Your task to perform on an android device: Go to calendar. Show me events next week Image 0: 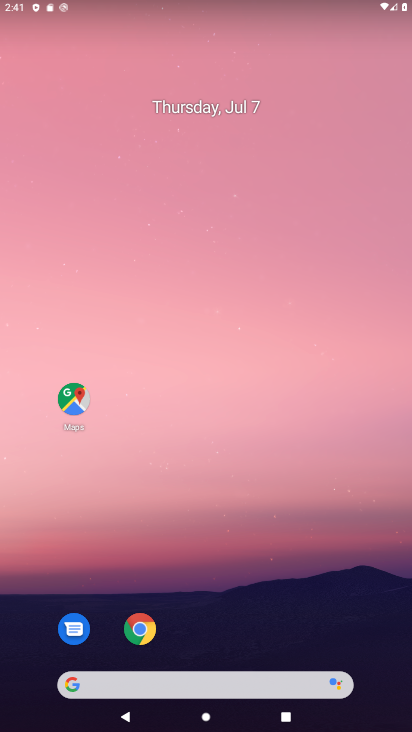
Step 0: click (369, 2)
Your task to perform on an android device: Go to calendar. Show me events next week Image 1: 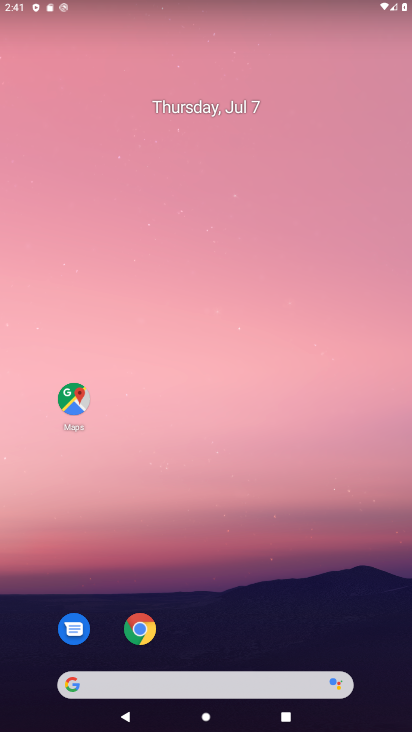
Step 1: drag from (207, 659) to (337, 120)
Your task to perform on an android device: Go to calendar. Show me events next week Image 2: 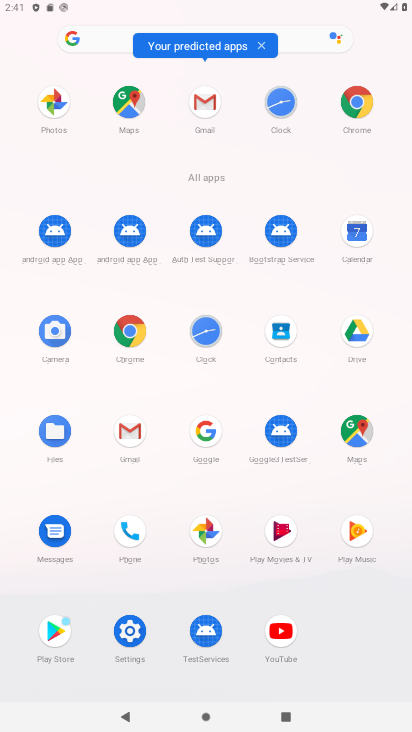
Step 2: click (360, 247)
Your task to perform on an android device: Go to calendar. Show me events next week Image 3: 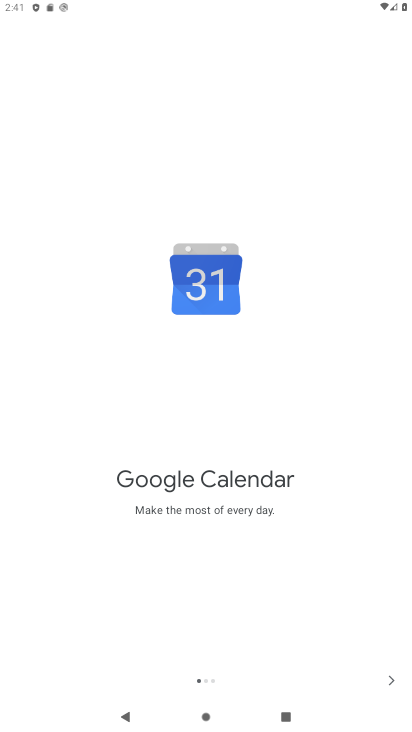
Step 3: click (384, 681)
Your task to perform on an android device: Go to calendar. Show me events next week Image 4: 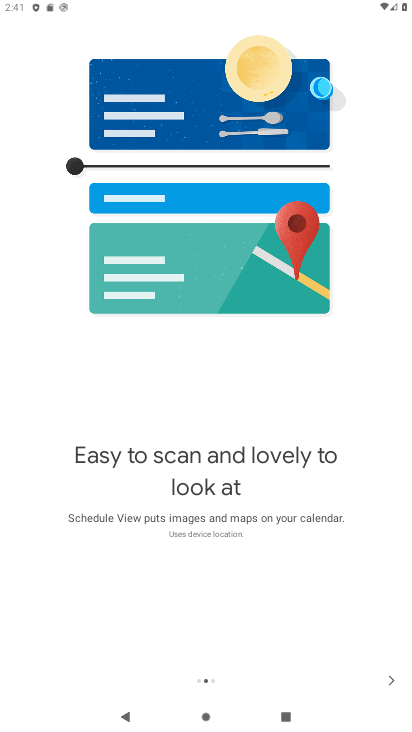
Step 4: click (390, 679)
Your task to perform on an android device: Go to calendar. Show me events next week Image 5: 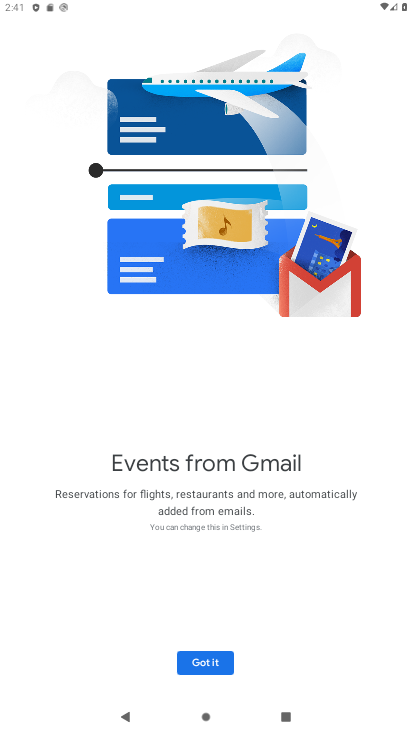
Step 5: click (204, 661)
Your task to perform on an android device: Go to calendar. Show me events next week Image 6: 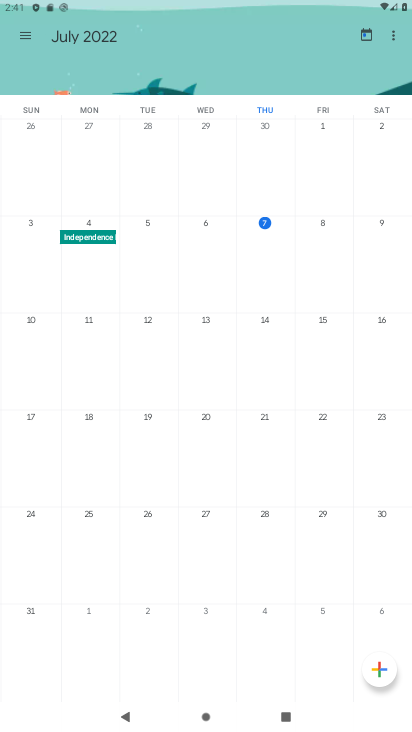
Step 6: click (33, 38)
Your task to perform on an android device: Go to calendar. Show me events next week Image 7: 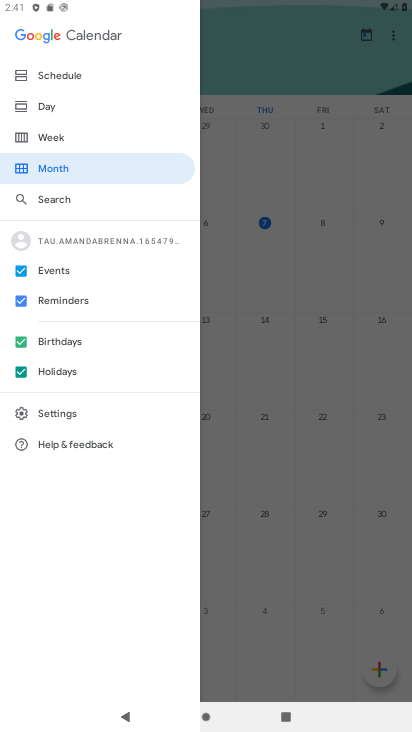
Step 7: click (63, 136)
Your task to perform on an android device: Go to calendar. Show me events next week Image 8: 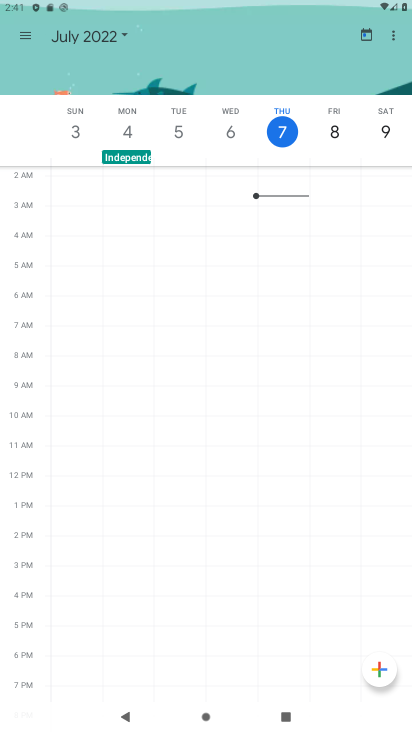
Step 8: task complete